Your task to perform on an android device: Open Reddit.com Image 0: 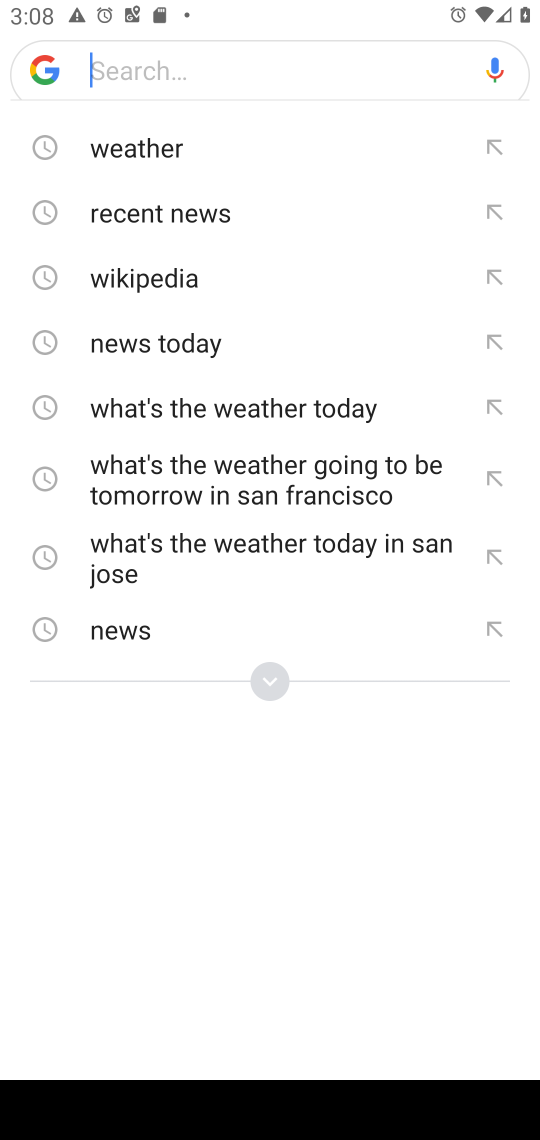
Step 0: press home button
Your task to perform on an android device: Open Reddit.com Image 1: 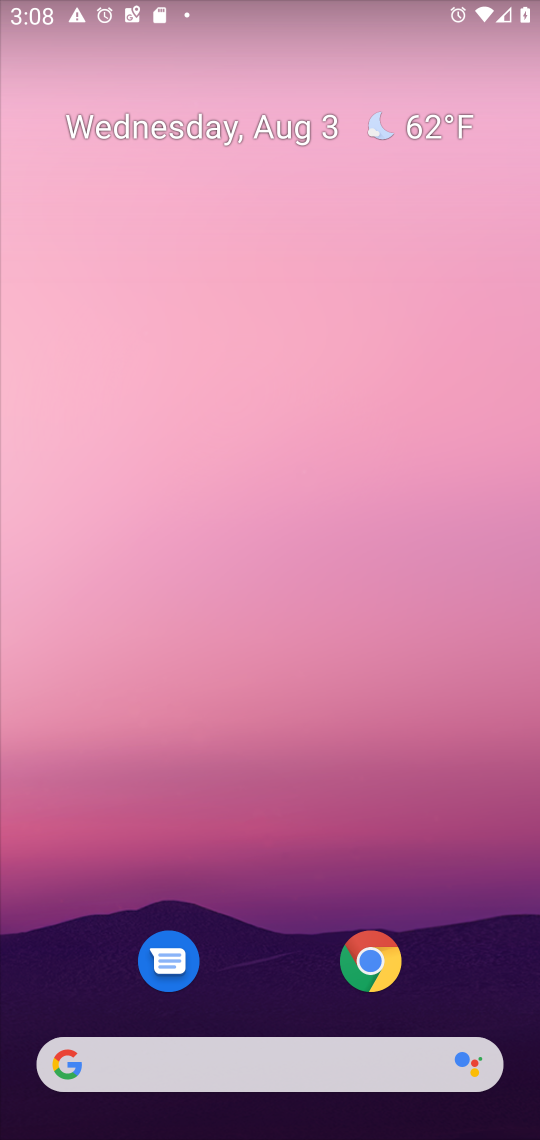
Step 1: click (378, 969)
Your task to perform on an android device: Open Reddit.com Image 2: 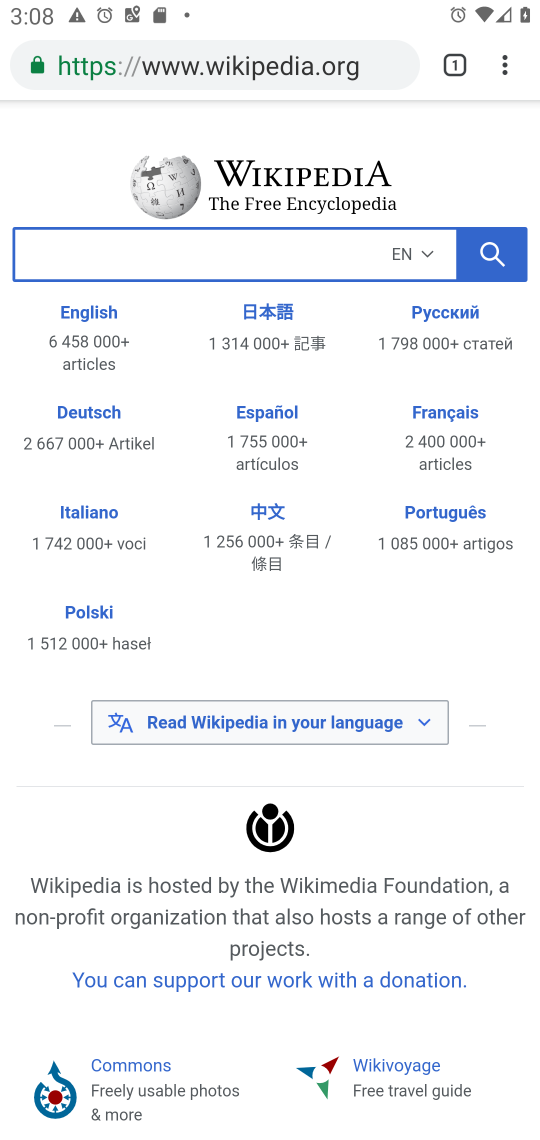
Step 2: click (373, 63)
Your task to perform on an android device: Open Reddit.com Image 3: 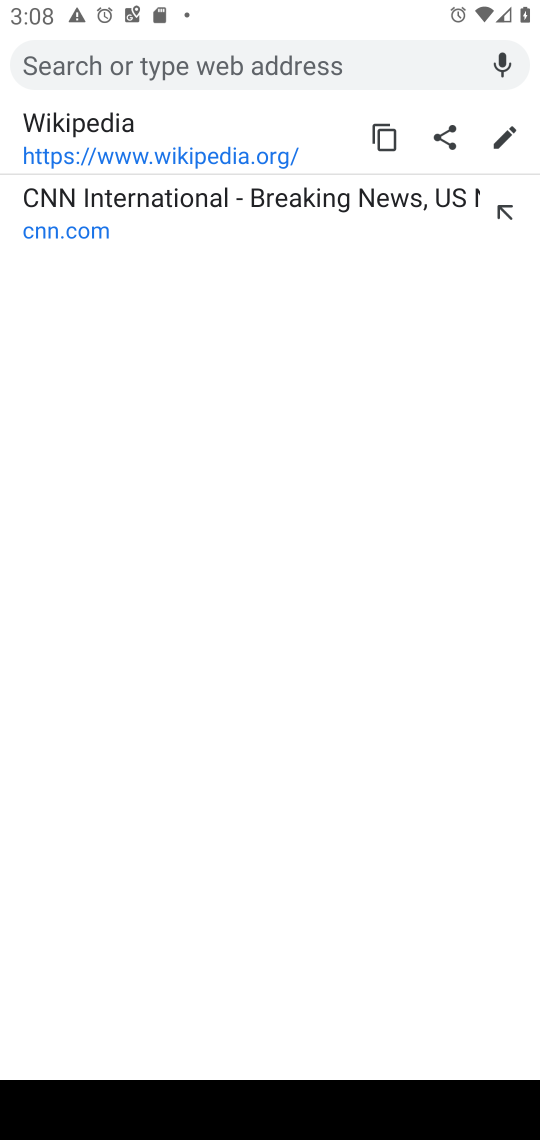
Step 3: type "reddit.com"
Your task to perform on an android device: Open Reddit.com Image 4: 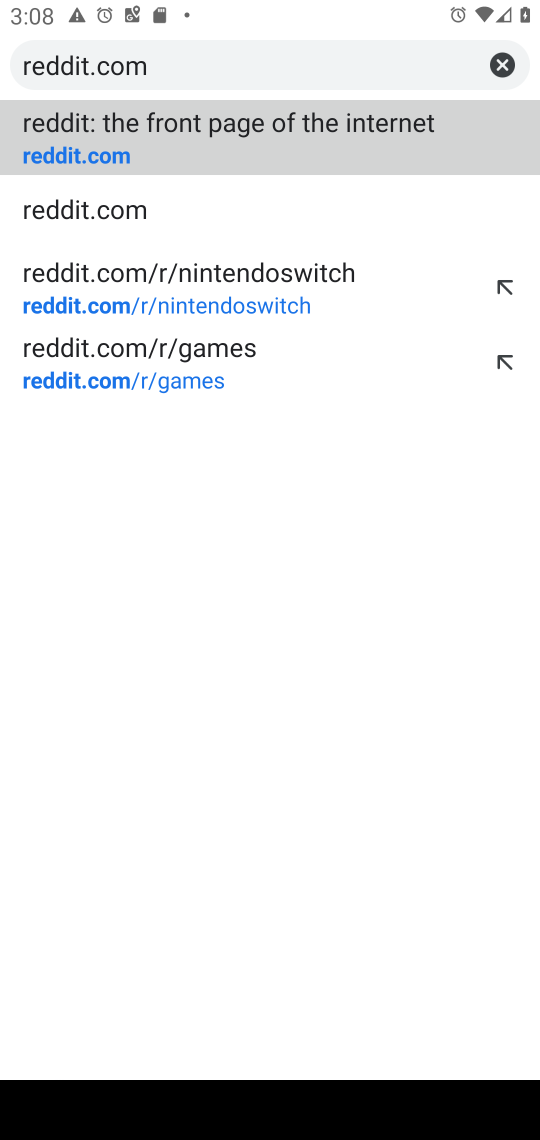
Step 4: click (95, 151)
Your task to perform on an android device: Open Reddit.com Image 5: 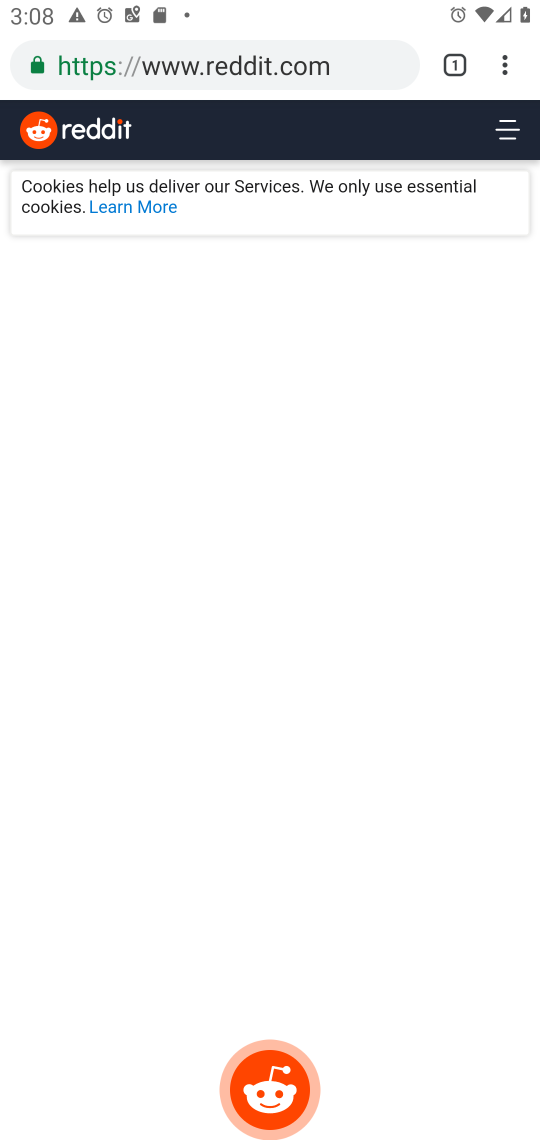
Step 5: task complete